Your task to perform on an android device: Open my contact list Image 0: 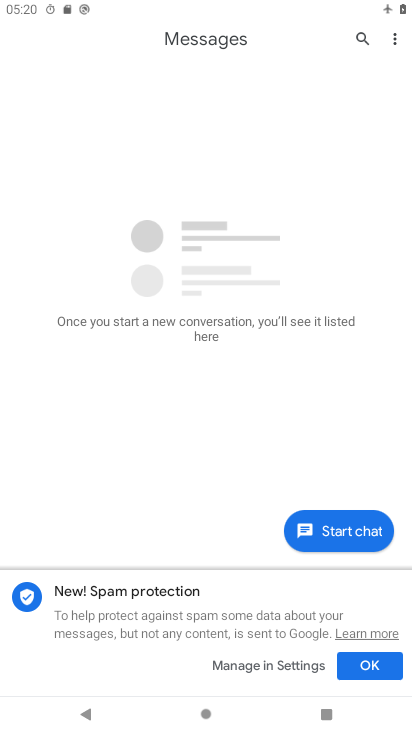
Step 0: press home button
Your task to perform on an android device: Open my contact list Image 1: 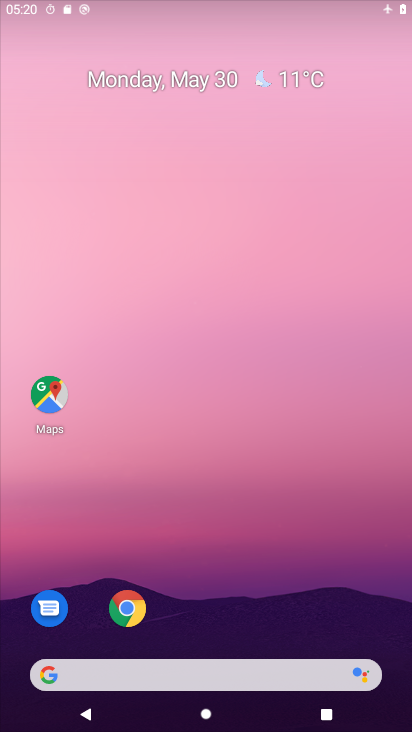
Step 1: drag from (325, 504) to (176, 0)
Your task to perform on an android device: Open my contact list Image 2: 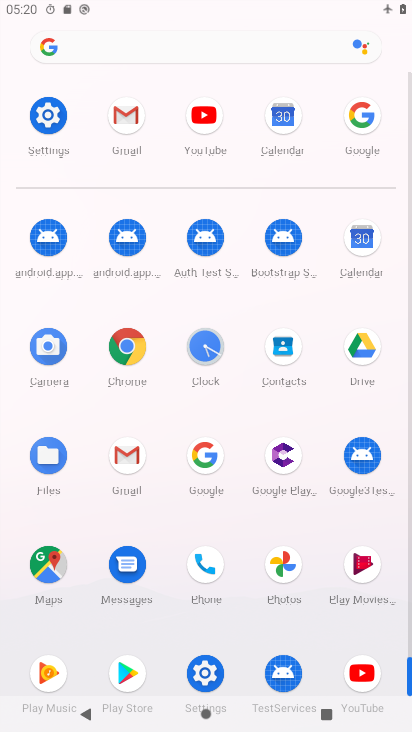
Step 2: click (296, 343)
Your task to perform on an android device: Open my contact list Image 3: 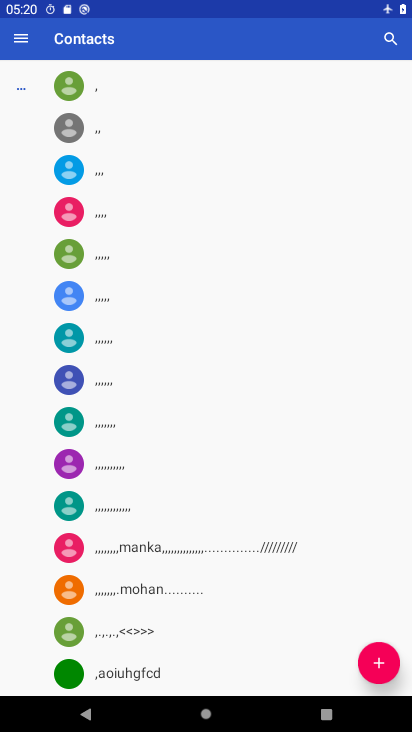
Step 3: task complete